Your task to perform on an android device: Turn on the flashlight Image 0: 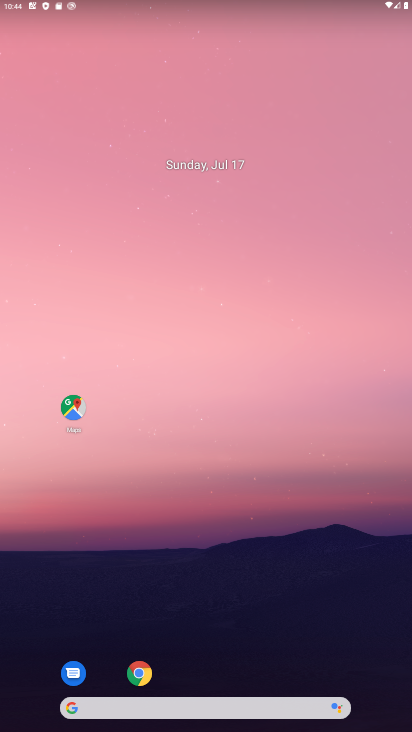
Step 0: drag from (209, 658) to (189, 91)
Your task to perform on an android device: Turn on the flashlight Image 1: 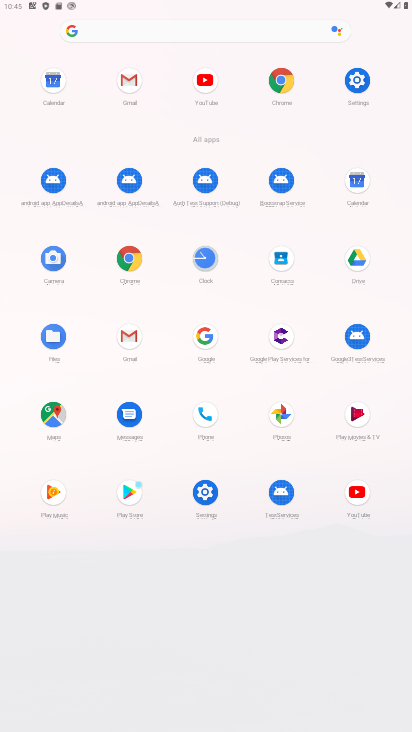
Step 1: click (361, 76)
Your task to perform on an android device: Turn on the flashlight Image 2: 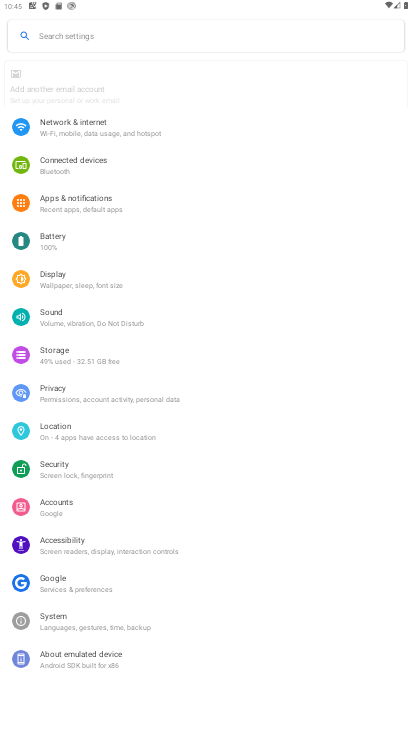
Step 2: click (152, 36)
Your task to perform on an android device: Turn on the flashlight Image 3: 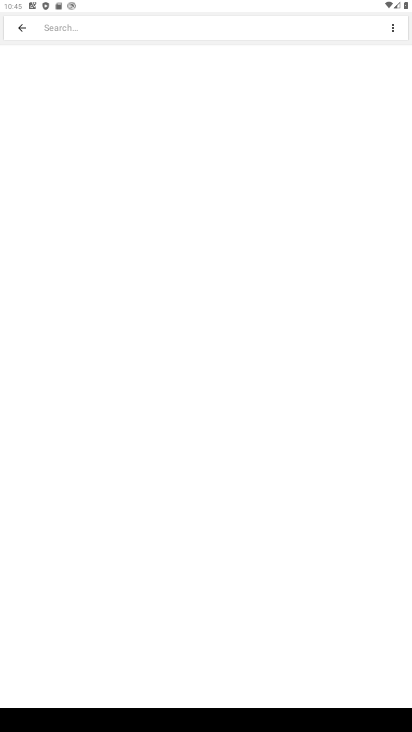
Step 3: type "flashlight"
Your task to perform on an android device: Turn on the flashlight Image 4: 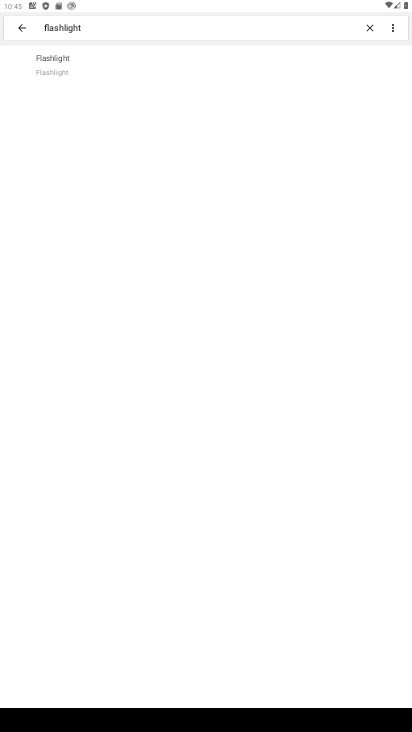
Step 4: task complete